Your task to perform on an android device: check google app version Image 0: 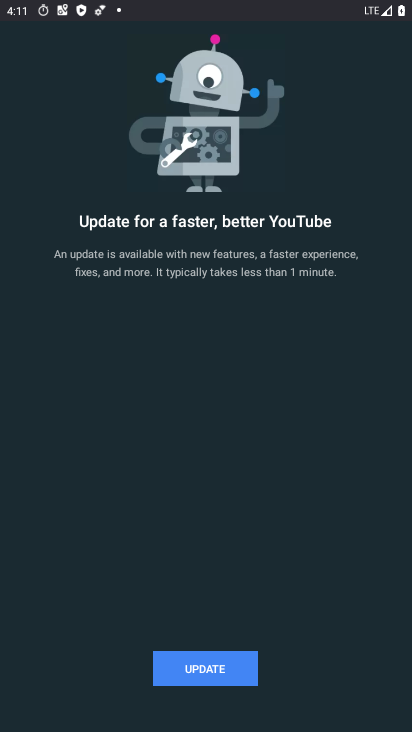
Step 0: press home button
Your task to perform on an android device: check google app version Image 1: 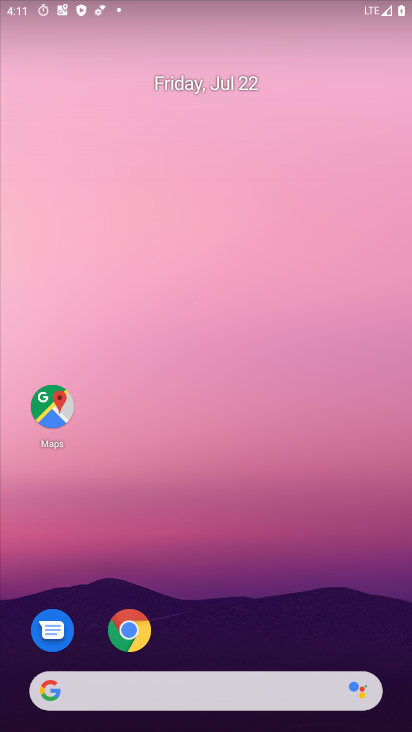
Step 1: drag from (98, 577) to (47, 22)
Your task to perform on an android device: check google app version Image 2: 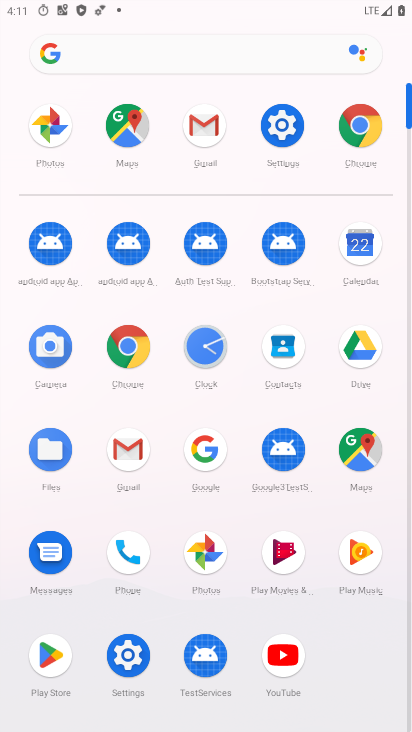
Step 2: click (275, 125)
Your task to perform on an android device: check google app version Image 3: 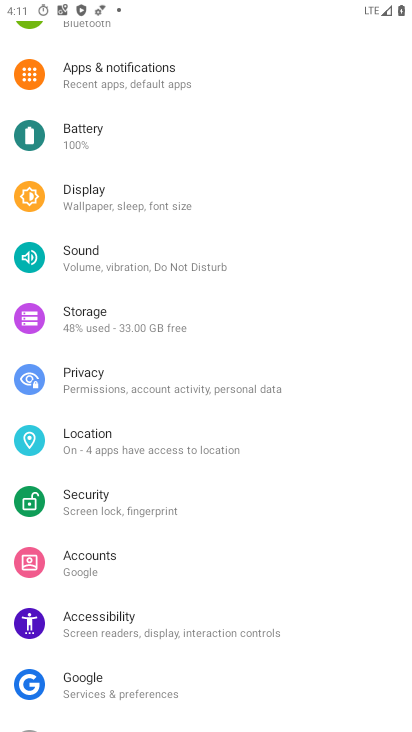
Step 3: drag from (153, 686) to (228, 410)
Your task to perform on an android device: check google app version Image 4: 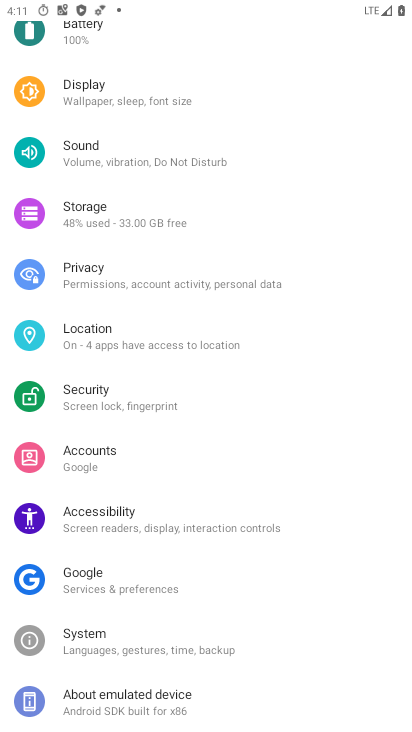
Step 4: press home button
Your task to perform on an android device: check google app version Image 5: 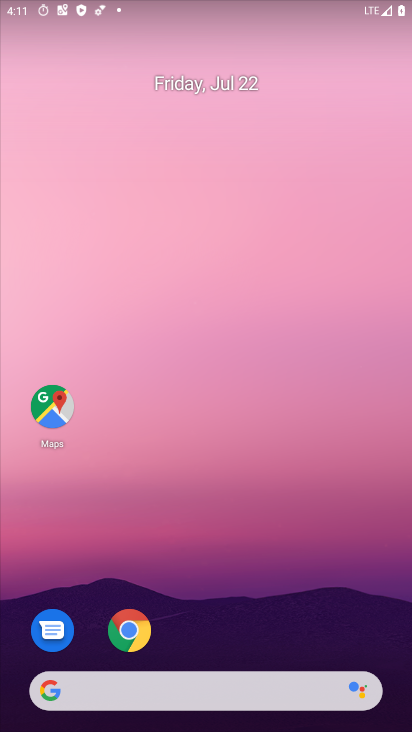
Step 5: drag from (267, 427) to (223, 52)
Your task to perform on an android device: check google app version Image 6: 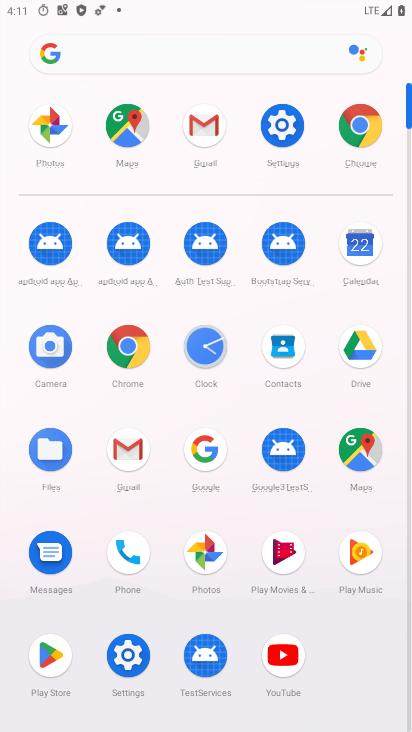
Step 6: click (122, 342)
Your task to perform on an android device: check google app version Image 7: 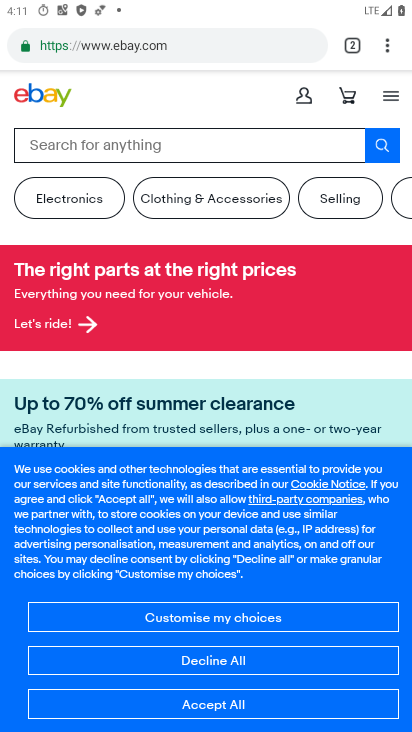
Step 7: drag from (392, 37) to (223, 587)
Your task to perform on an android device: check google app version Image 8: 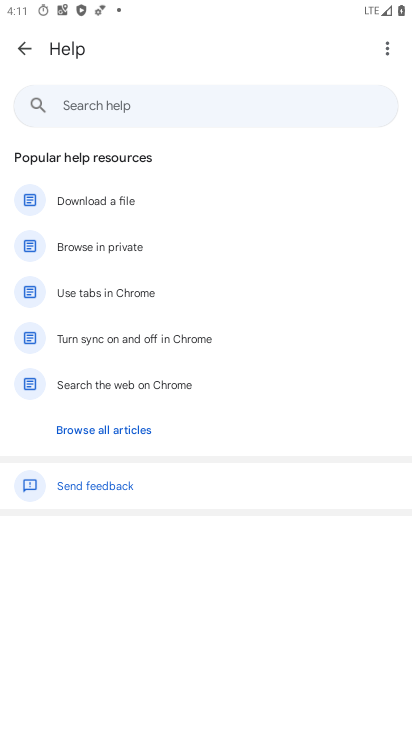
Step 8: click (392, 49)
Your task to perform on an android device: check google app version Image 9: 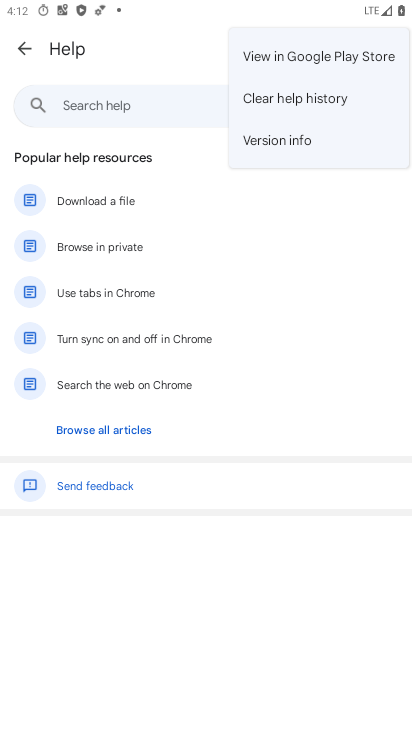
Step 9: click (320, 136)
Your task to perform on an android device: check google app version Image 10: 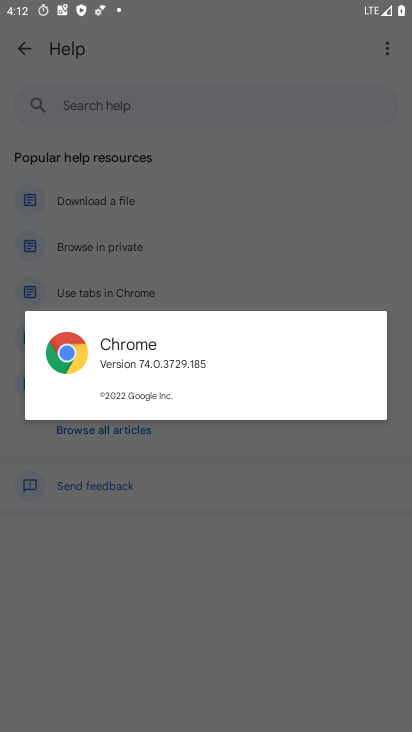
Step 10: task complete